Your task to perform on an android device: open app "VLC for Android" Image 0: 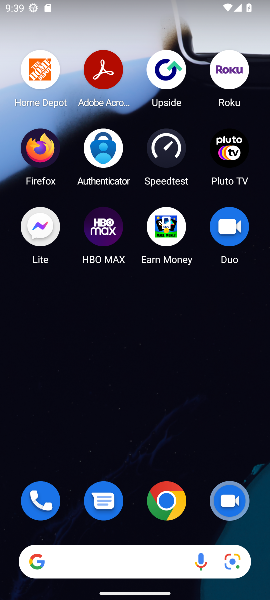
Step 0: drag from (136, 528) to (116, 15)
Your task to perform on an android device: open app "VLC for Android" Image 1: 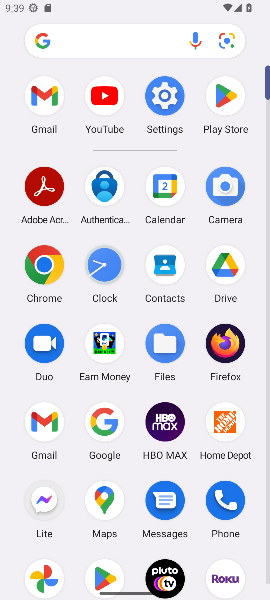
Step 1: click (226, 98)
Your task to perform on an android device: open app "VLC for Android" Image 2: 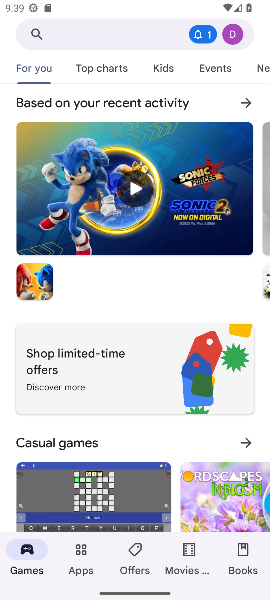
Step 2: click (127, 32)
Your task to perform on an android device: open app "VLC for Android" Image 3: 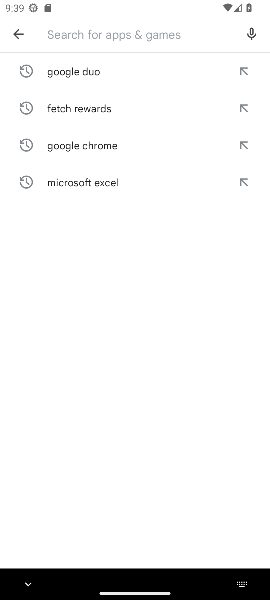
Step 3: type "VLC for Android"
Your task to perform on an android device: open app "VLC for Android" Image 4: 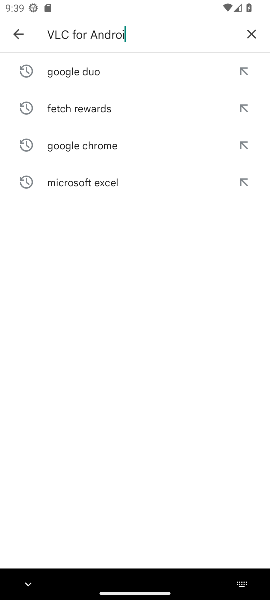
Step 4: type ""
Your task to perform on an android device: open app "VLC for Android" Image 5: 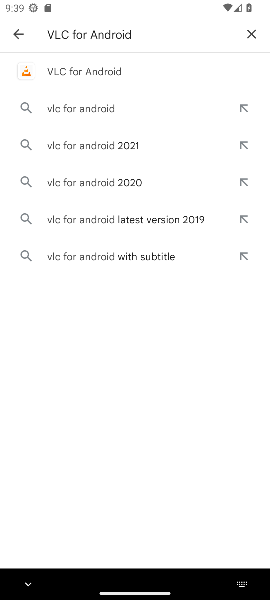
Step 5: click (71, 73)
Your task to perform on an android device: open app "VLC for Android" Image 6: 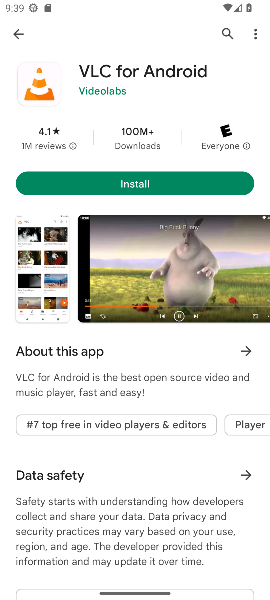
Step 6: task complete